Your task to perform on an android device: turn on priority inbox in the gmail app Image 0: 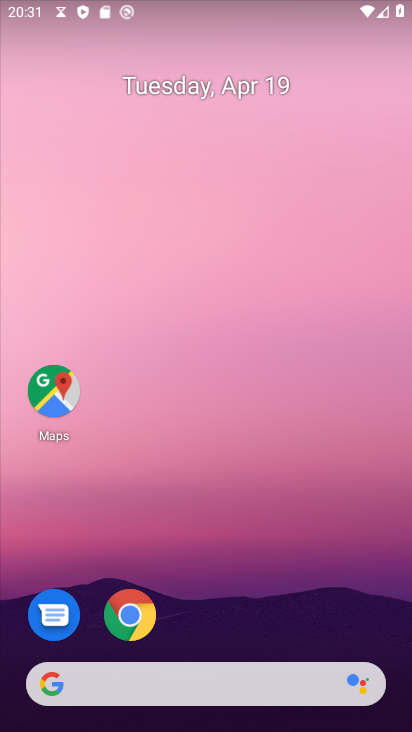
Step 0: drag from (396, 642) to (320, 47)
Your task to perform on an android device: turn on priority inbox in the gmail app Image 1: 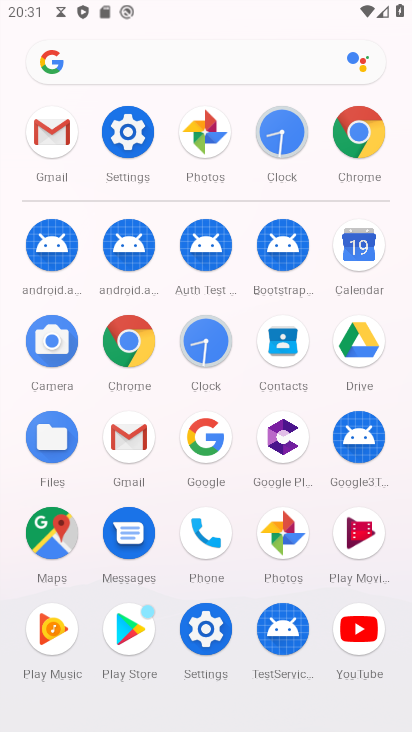
Step 1: drag from (11, 583) to (22, 324)
Your task to perform on an android device: turn on priority inbox in the gmail app Image 2: 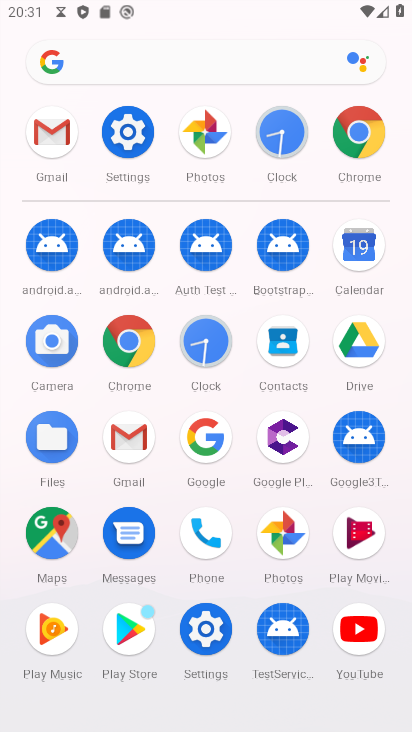
Step 2: click (133, 434)
Your task to perform on an android device: turn on priority inbox in the gmail app Image 3: 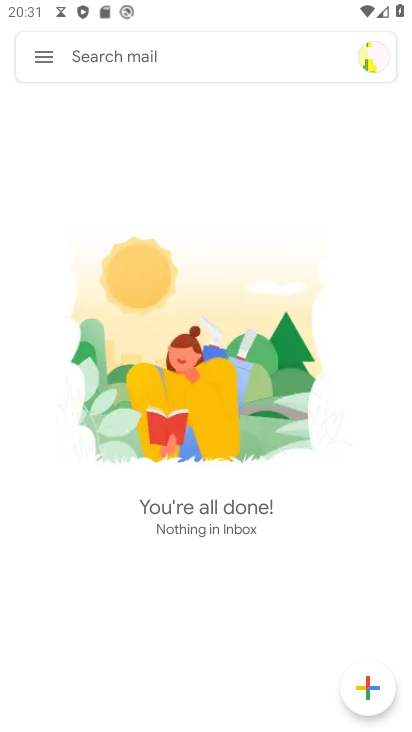
Step 3: click (46, 58)
Your task to perform on an android device: turn on priority inbox in the gmail app Image 4: 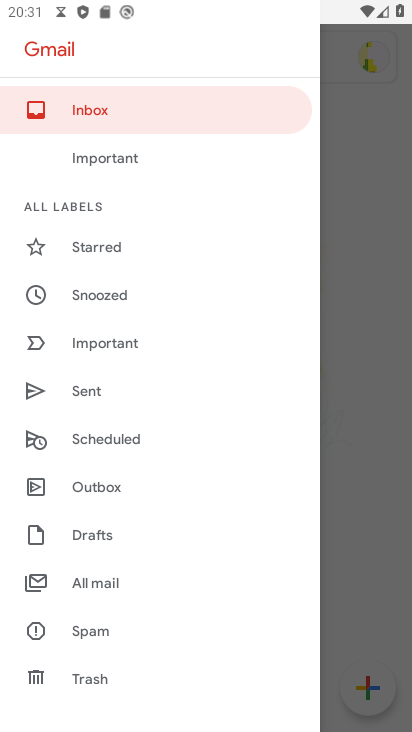
Step 4: drag from (136, 437) to (169, 189)
Your task to perform on an android device: turn on priority inbox in the gmail app Image 5: 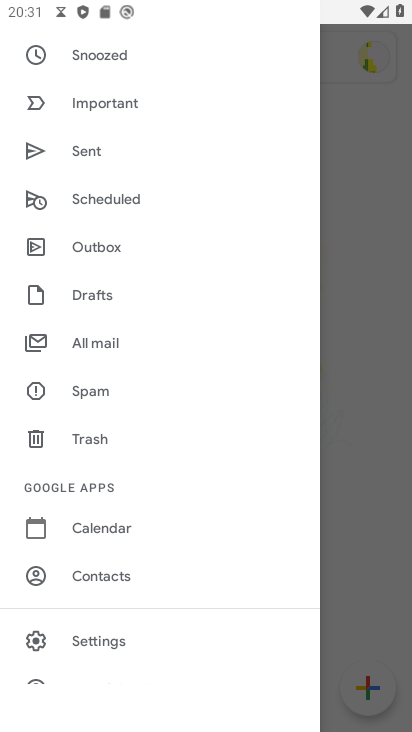
Step 5: drag from (154, 327) to (162, 95)
Your task to perform on an android device: turn on priority inbox in the gmail app Image 6: 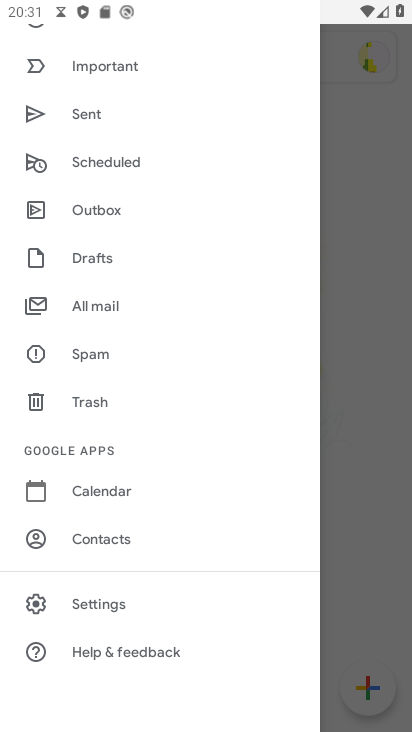
Step 6: click (73, 604)
Your task to perform on an android device: turn on priority inbox in the gmail app Image 7: 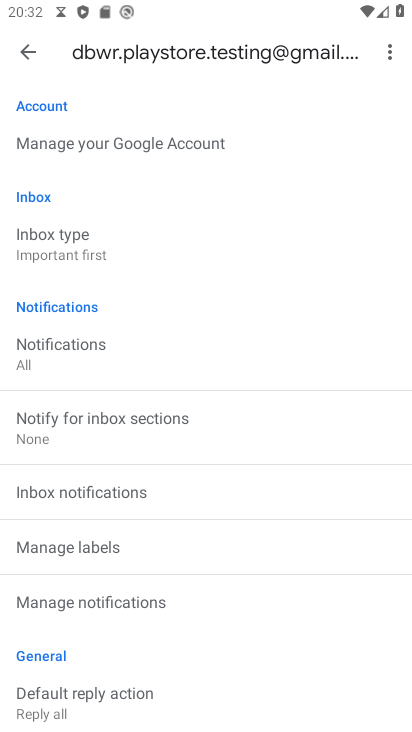
Step 7: click (89, 233)
Your task to perform on an android device: turn on priority inbox in the gmail app Image 8: 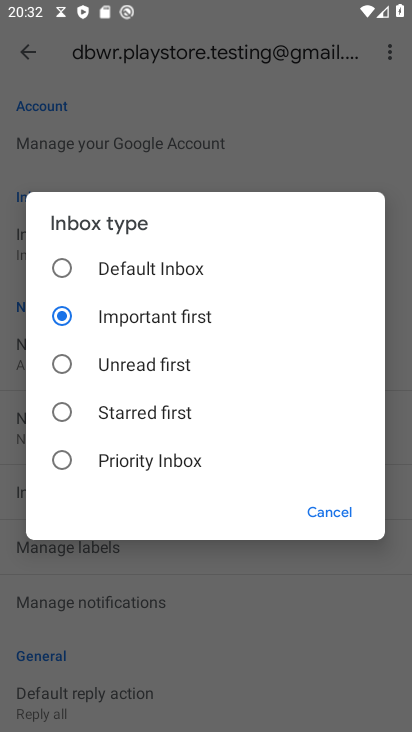
Step 8: click (95, 467)
Your task to perform on an android device: turn on priority inbox in the gmail app Image 9: 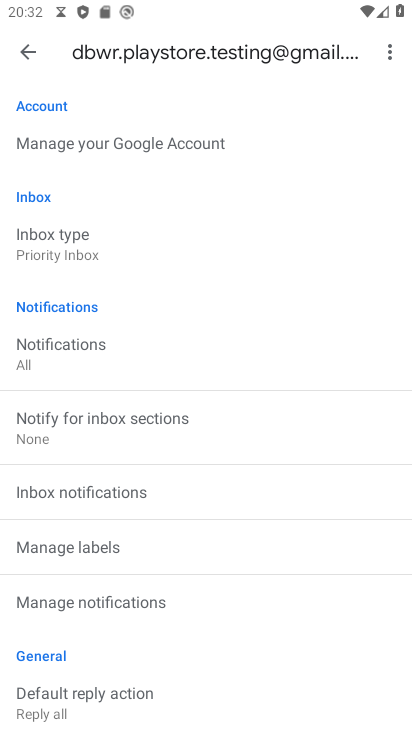
Step 9: task complete